Your task to perform on an android device: turn on location history Image 0: 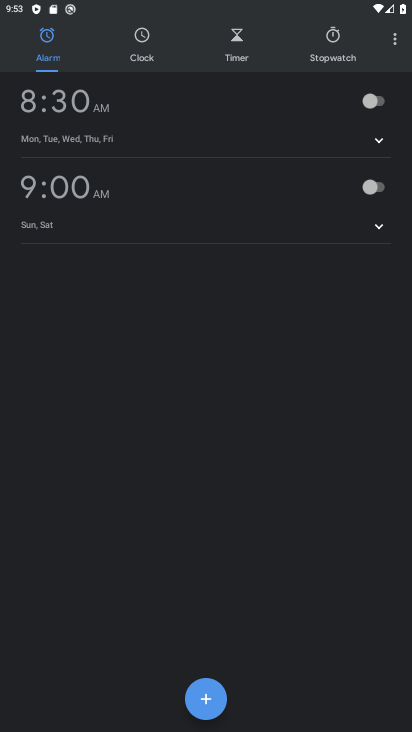
Step 0: press home button
Your task to perform on an android device: turn on location history Image 1: 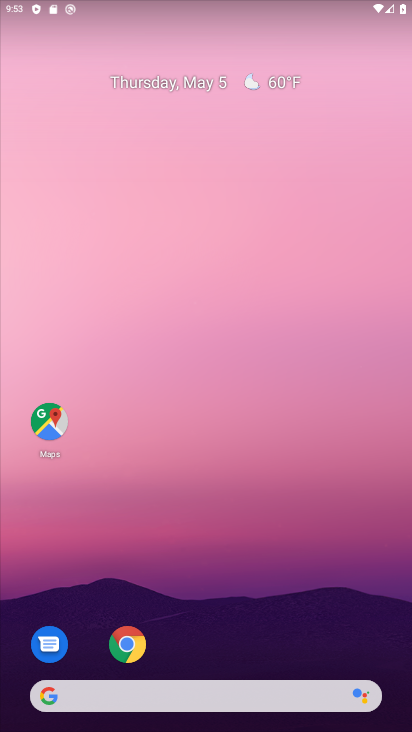
Step 1: drag from (374, 601) to (389, 58)
Your task to perform on an android device: turn on location history Image 2: 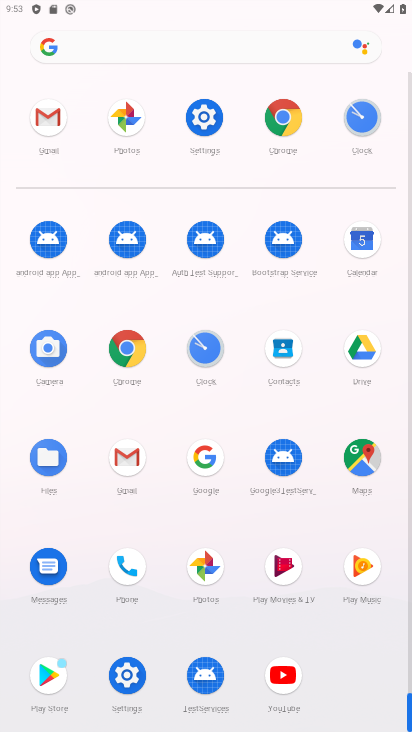
Step 2: click (208, 135)
Your task to perform on an android device: turn on location history Image 3: 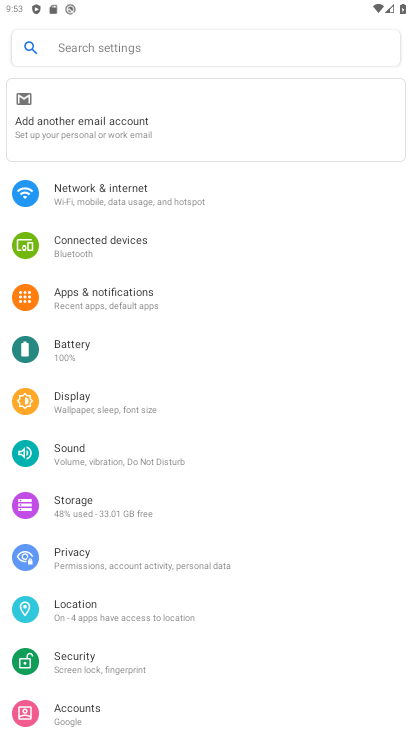
Step 3: click (93, 603)
Your task to perform on an android device: turn on location history Image 4: 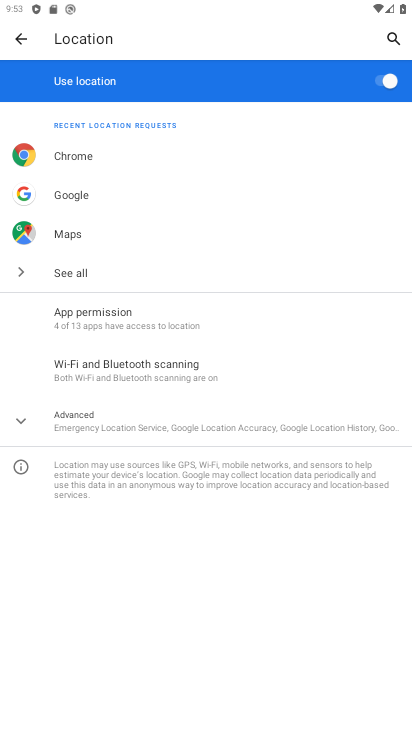
Step 4: click (114, 411)
Your task to perform on an android device: turn on location history Image 5: 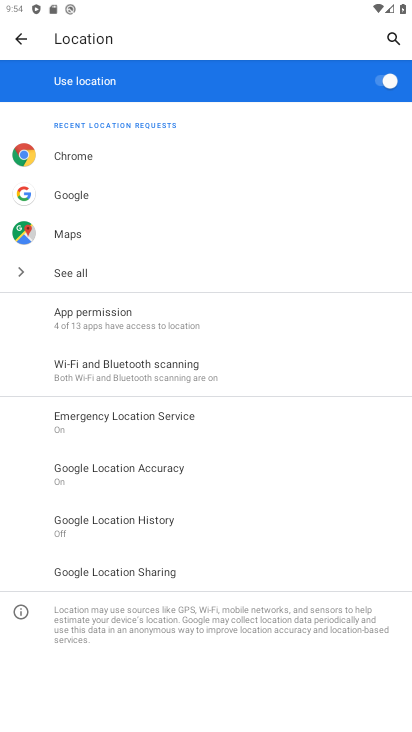
Step 5: click (127, 517)
Your task to perform on an android device: turn on location history Image 6: 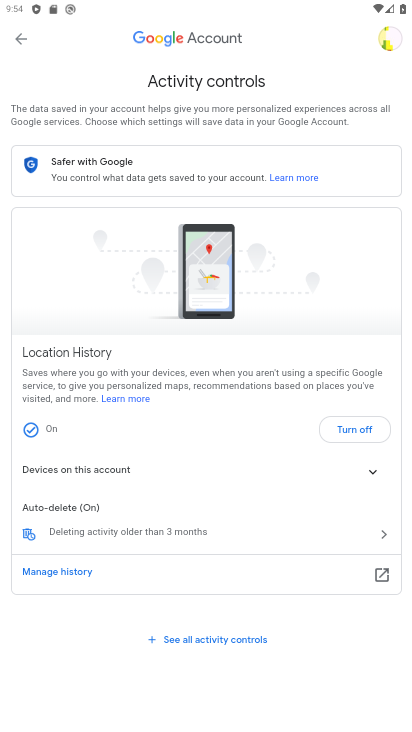
Step 6: click (30, 428)
Your task to perform on an android device: turn on location history Image 7: 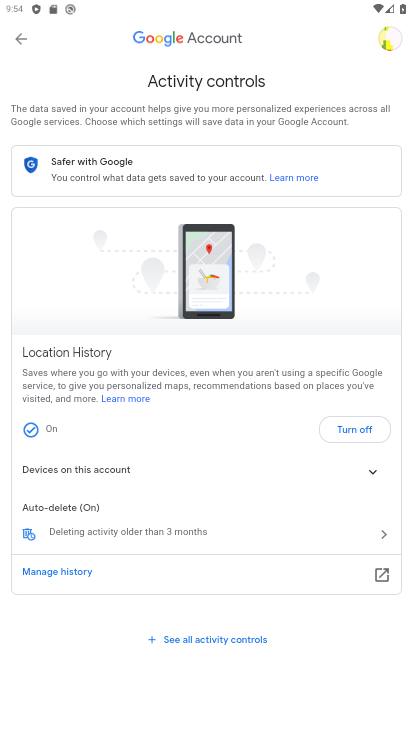
Step 7: click (369, 423)
Your task to perform on an android device: turn on location history Image 8: 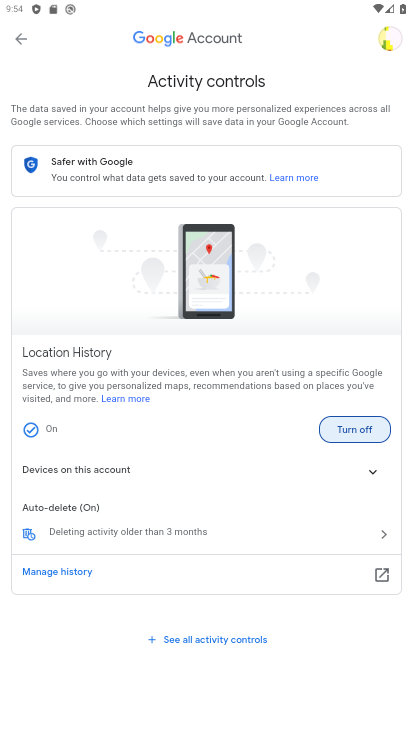
Step 8: click (341, 433)
Your task to perform on an android device: turn on location history Image 9: 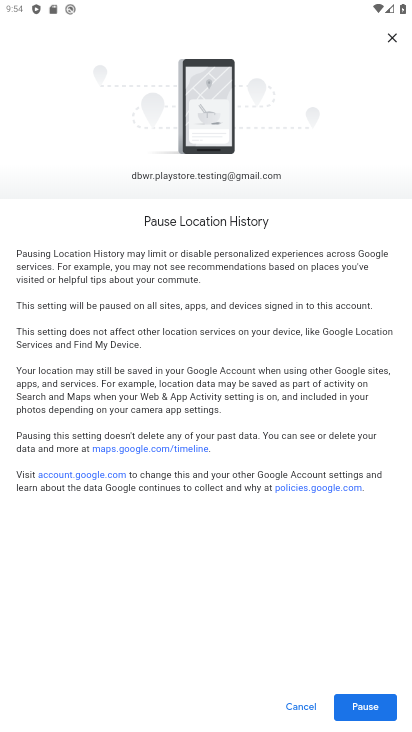
Step 9: drag from (295, 589) to (326, 271)
Your task to perform on an android device: turn on location history Image 10: 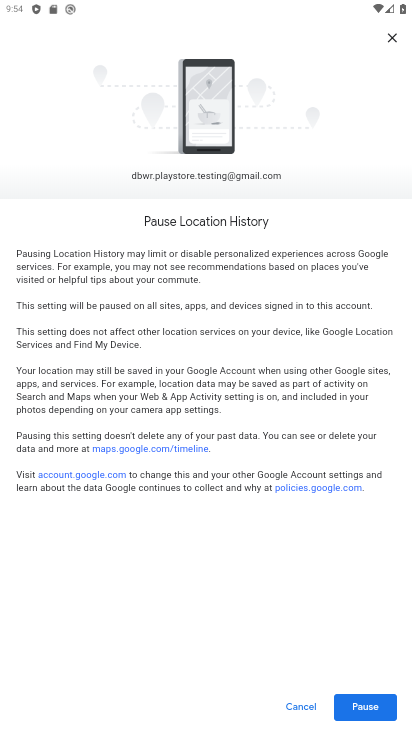
Step 10: click (302, 706)
Your task to perform on an android device: turn on location history Image 11: 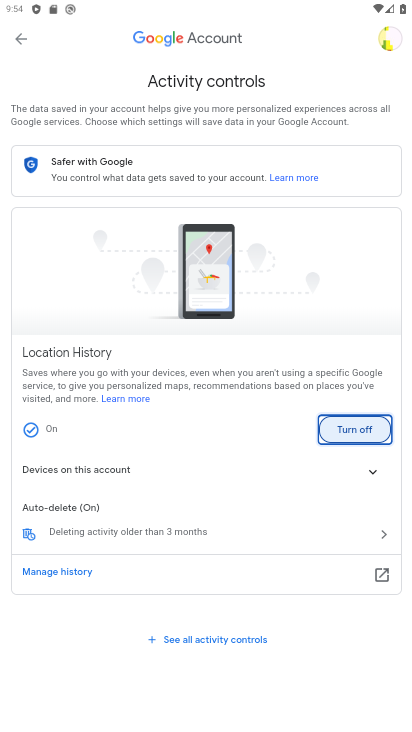
Step 11: task complete